Your task to perform on an android device: turn on sleep mode Image 0: 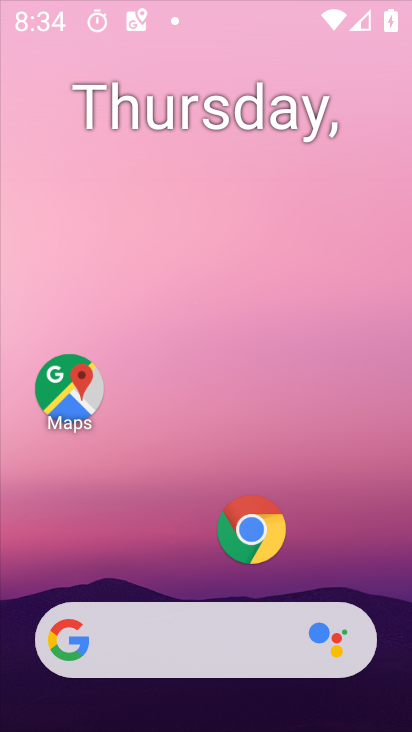
Step 0: press home button
Your task to perform on an android device: turn on sleep mode Image 1: 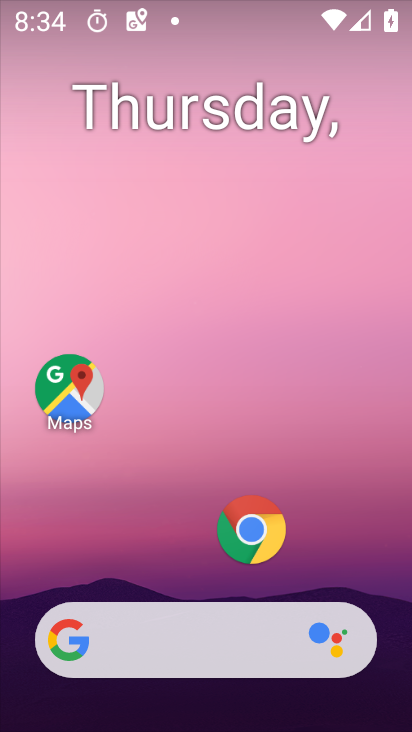
Step 1: drag from (192, 566) to (243, 64)
Your task to perform on an android device: turn on sleep mode Image 2: 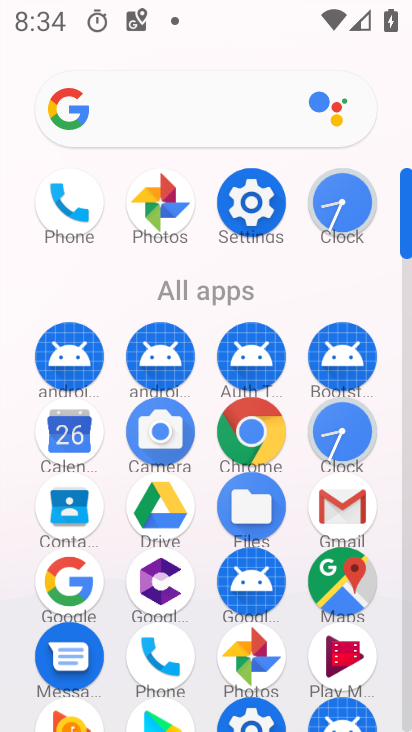
Step 2: click (248, 196)
Your task to perform on an android device: turn on sleep mode Image 3: 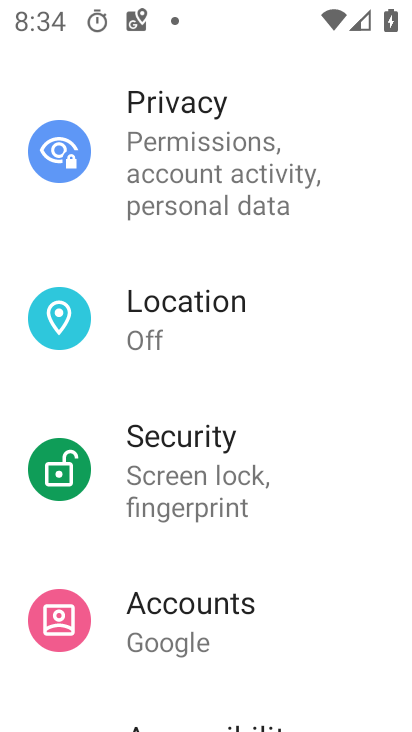
Step 3: drag from (196, 113) to (196, 634)
Your task to perform on an android device: turn on sleep mode Image 4: 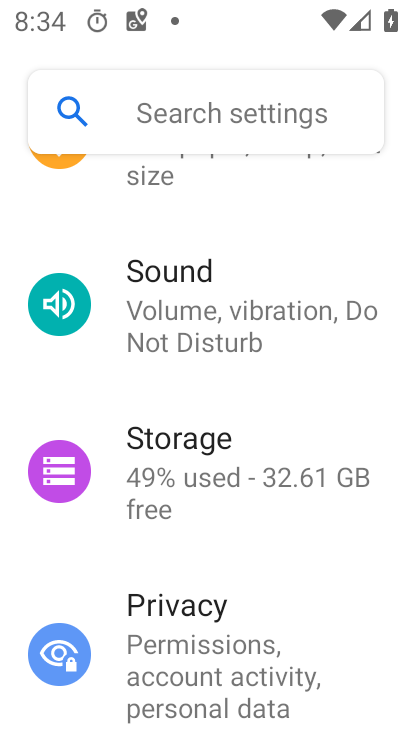
Step 4: drag from (209, 265) to (210, 642)
Your task to perform on an android device: turn on sleep mode Image 5: 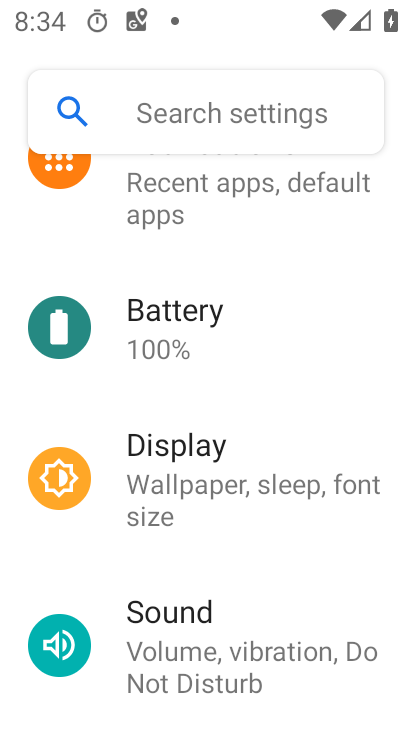
Step 5: click (112, 470)
Your task to perform on an android device: turn on sleep mode Image 6: 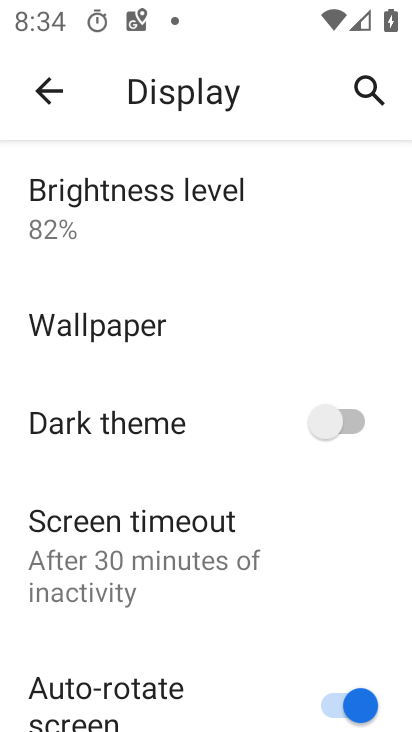
Step 6: drag from (195, 685) to (227, 169)
Your task to perform on an android device: turn on sleep mode Image 7: 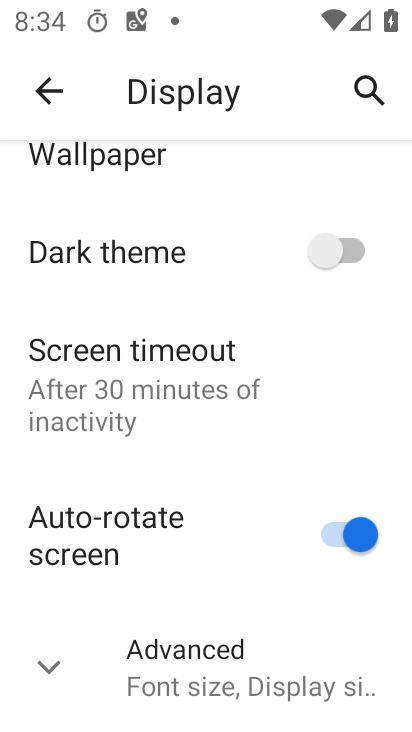
Step 7: click (41, 655)
Your task to perform on an android device: turn on sleep mode Image 8: 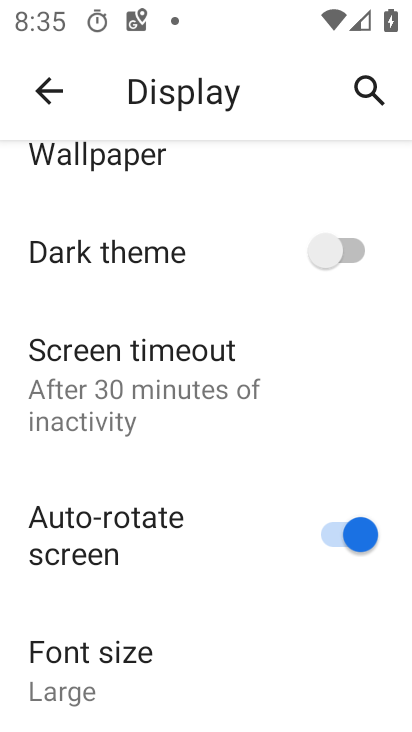
Step 8: task complete